Your task to perform on an android device: install app "Google Duo" Image 0: 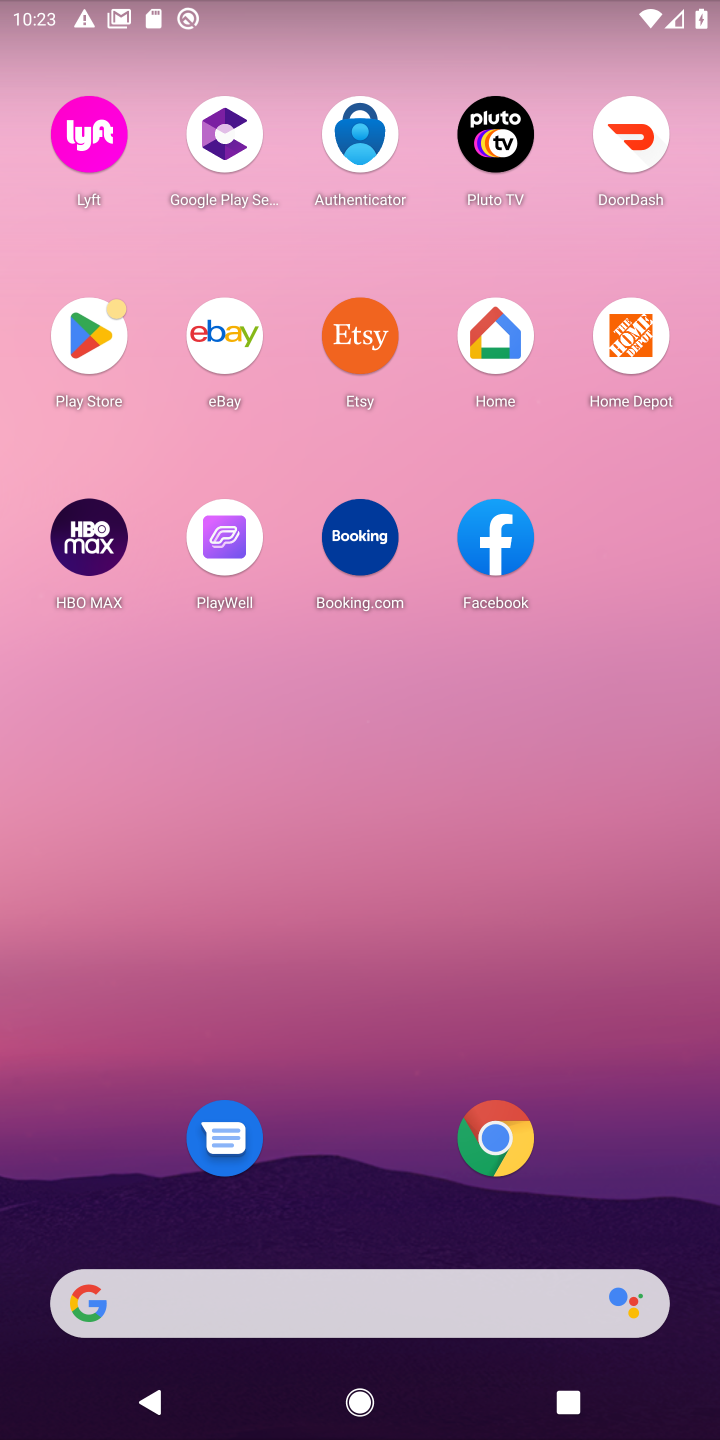
Step 0: click (110, 336)
Your task to perform on an android device: install app "Google Duo" Image 1: 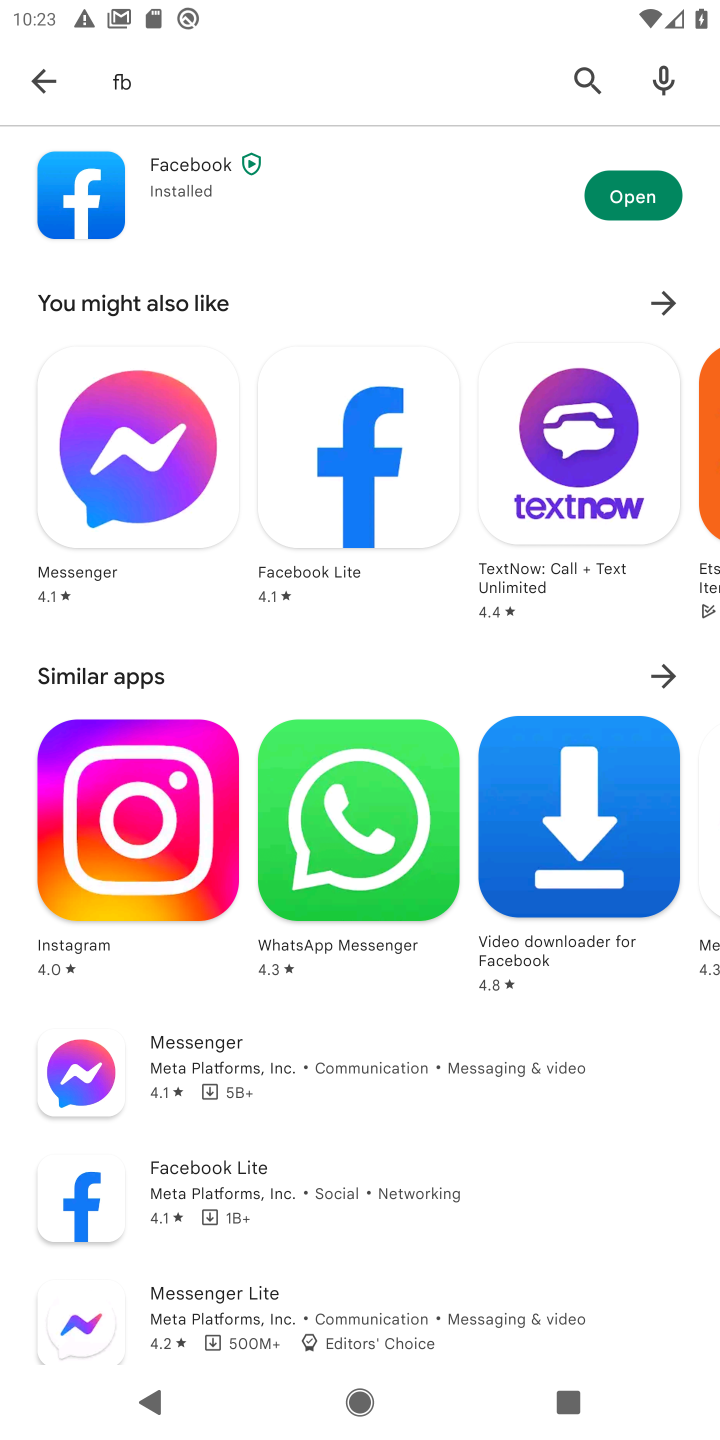
Step 1: click (593, 81)
Your task to perform on an android device: install app "Google Duo" Image 2: 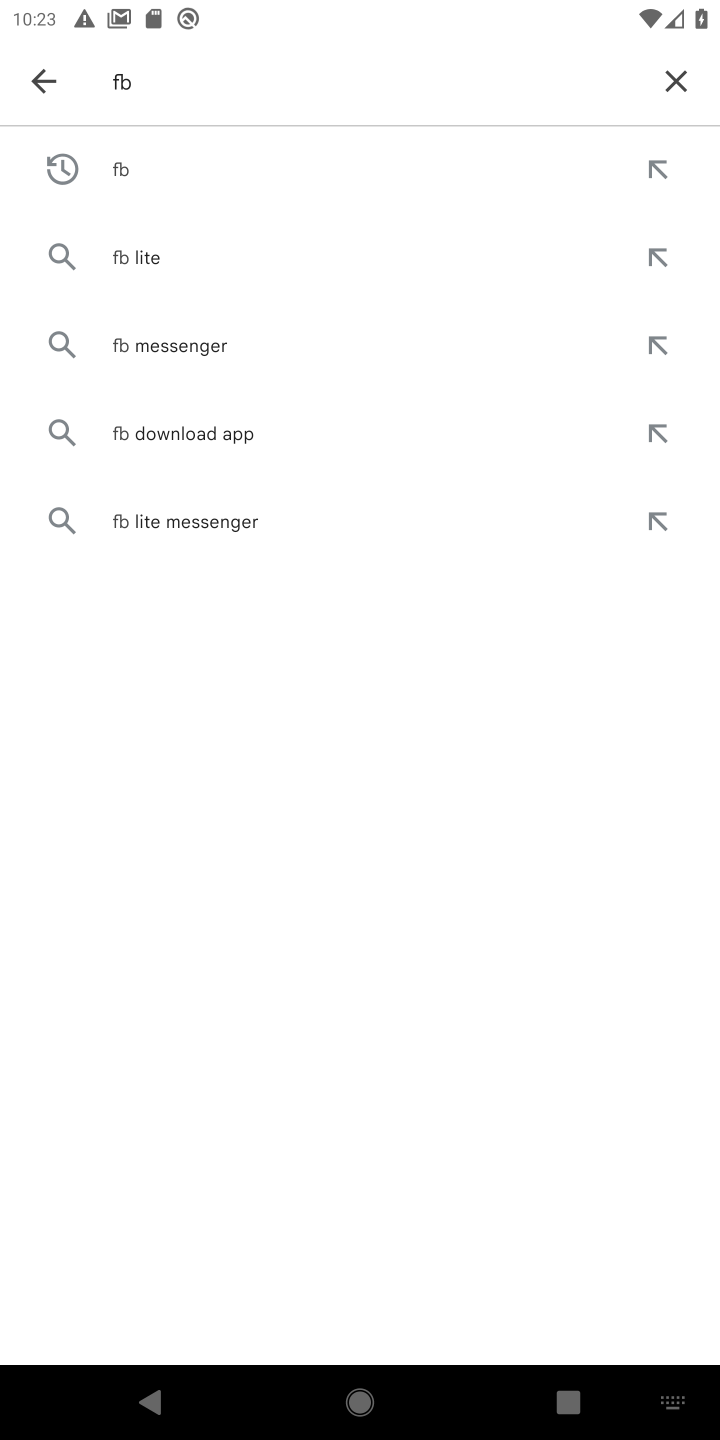
Step 2: click (678, 78)
Your task to perform on an android device: install app "Google Duo" Image 3: 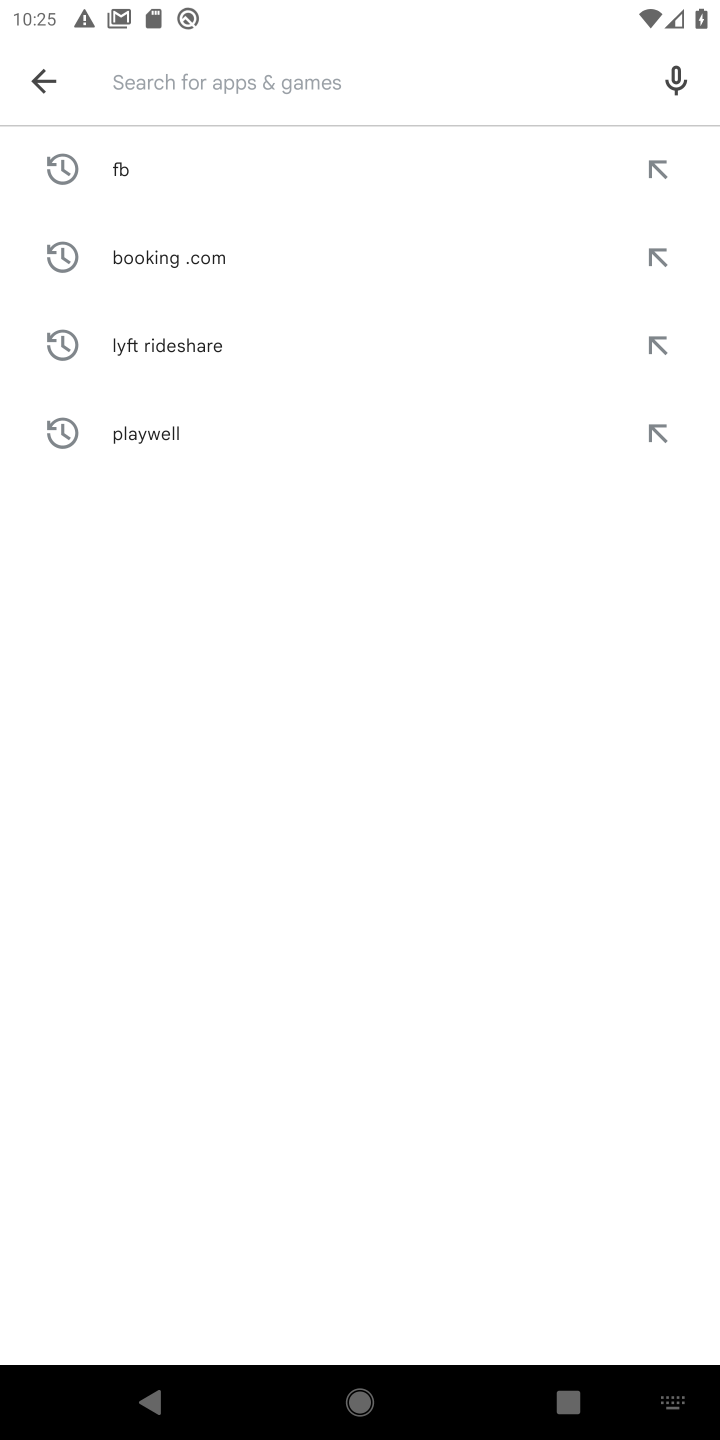
Step 3: type "google duo"
Your task to perform on an android device: install app "Google Duo" Image 4: 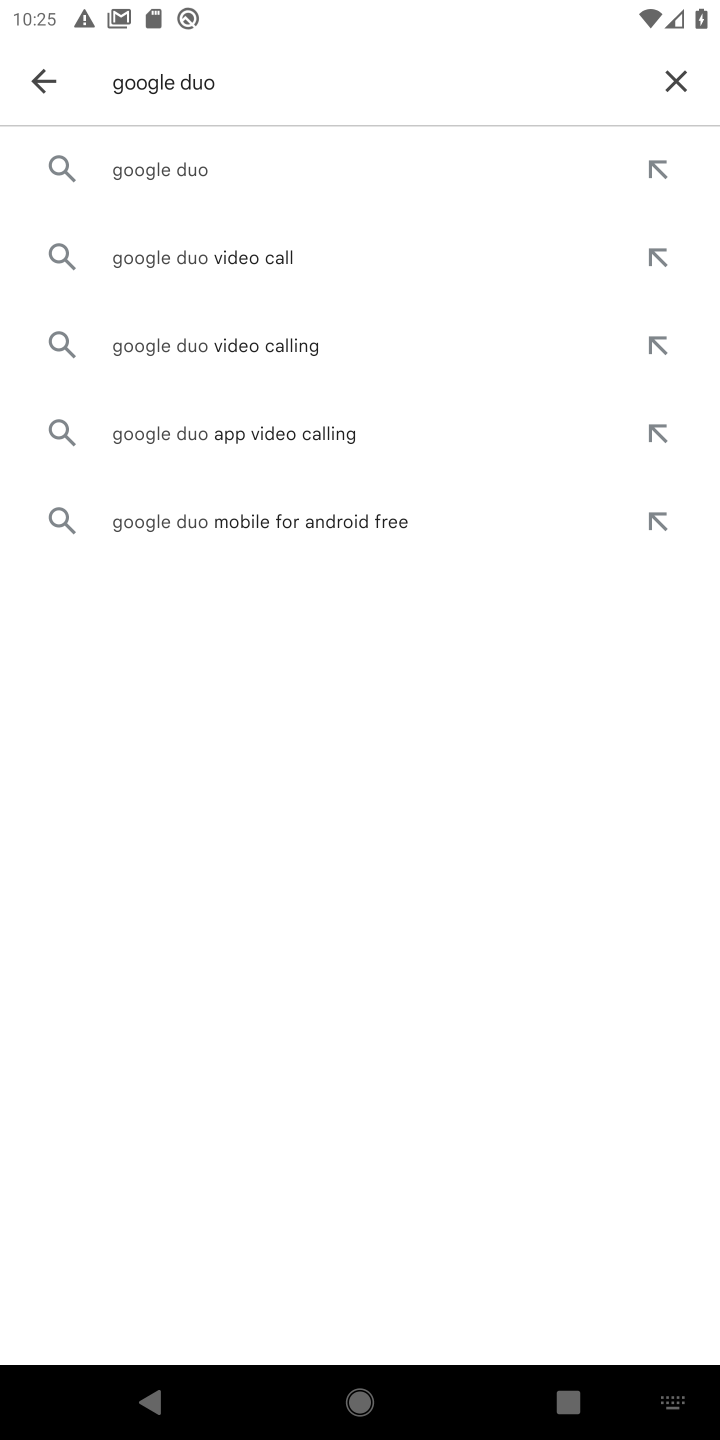
Step 4: click (185, 163)
Your task to perform on an android device: install app "Google Duo" Image 5: 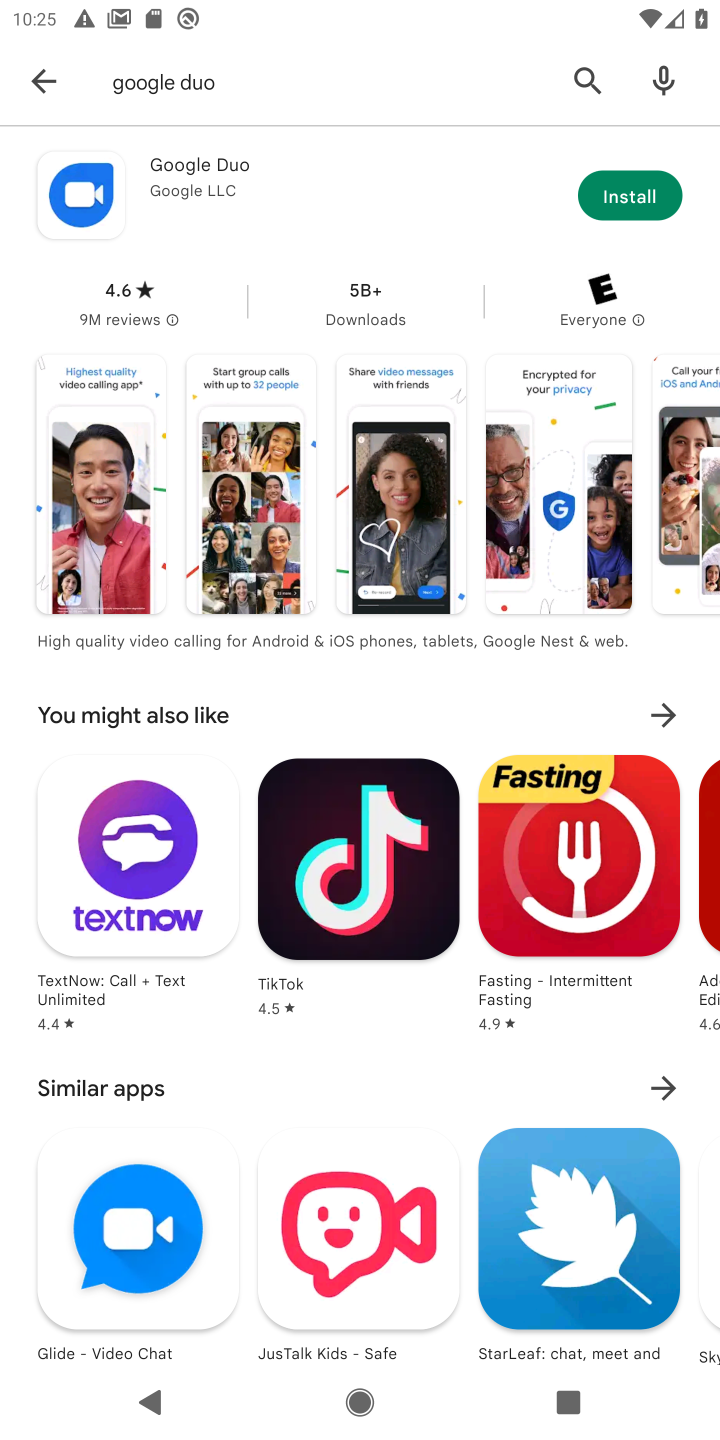
Step 5: click (673, 190)
Your task to perform on an android device: install app "Google Duo" Image 6: 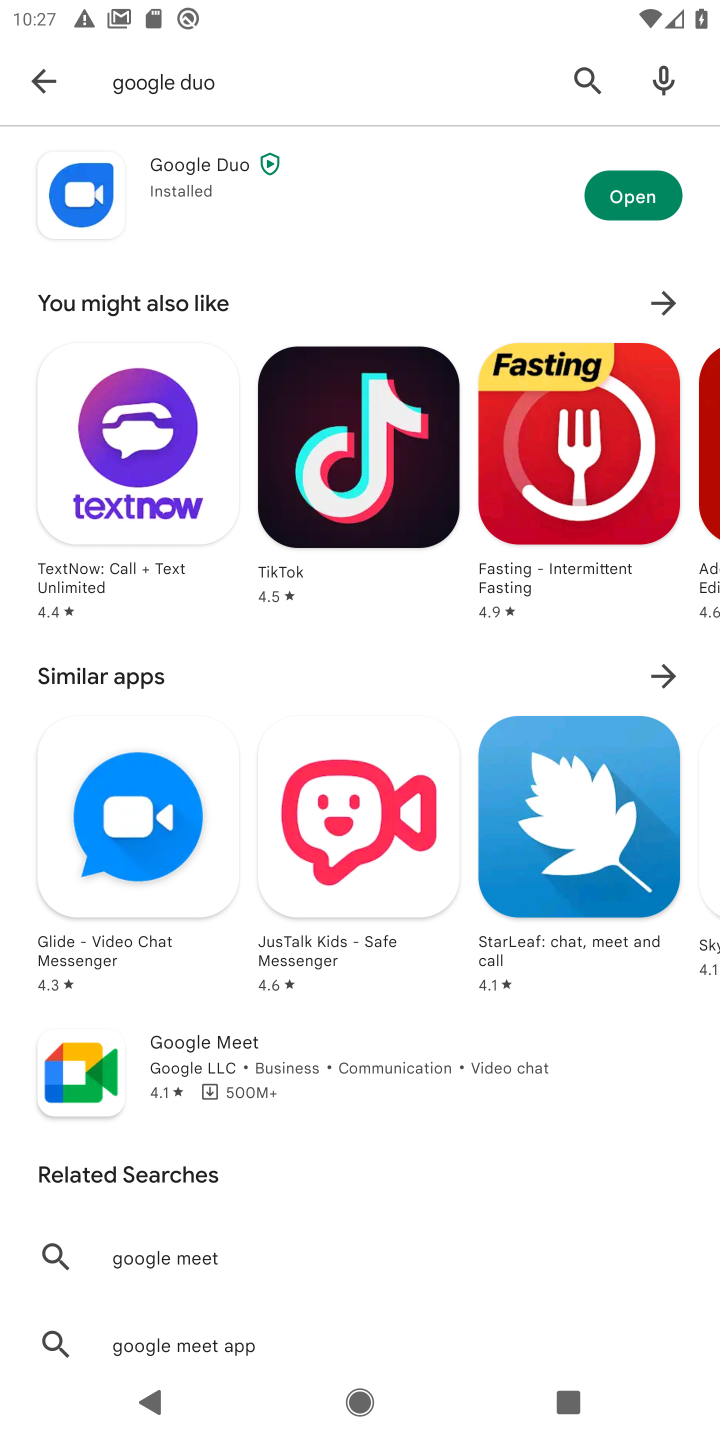
Step 6: task complete